Your task to perform on an android device: turn on sleep mode Image 0: 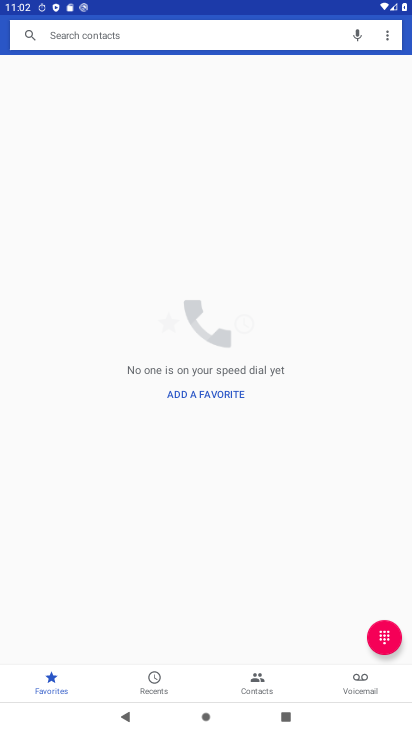
Step 0: press home button
Your task to perform on an android device: turn on sleep mode Image 1: 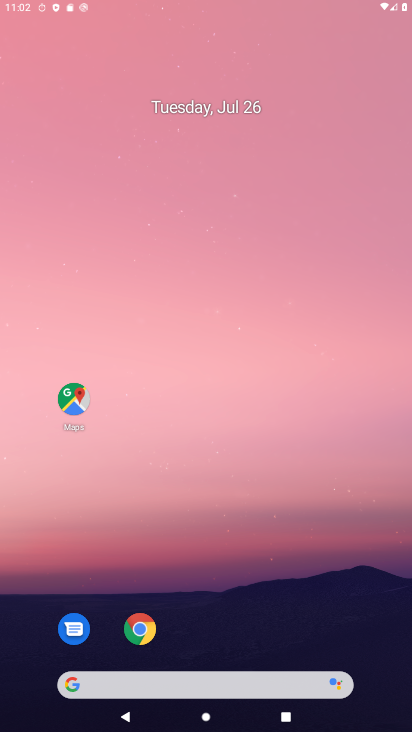
Step 1: drag from (375, 669) to (226, 109)
Your task to perform on an android device: turn on sleep mode Image 2: 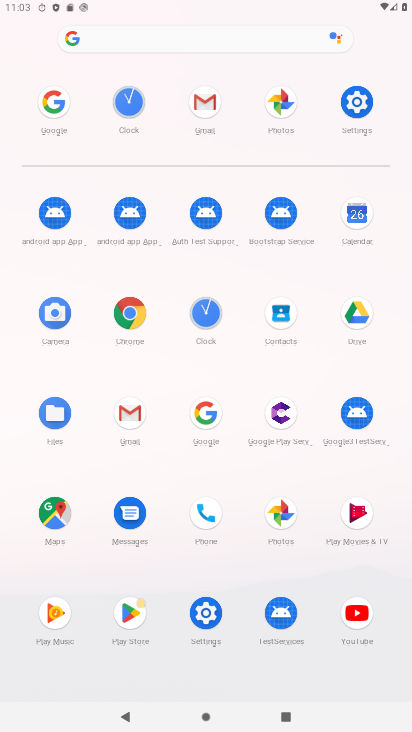
Step 2: click (199, 635)
Your task to perform on an android device: turn on sleep mode Image 3: 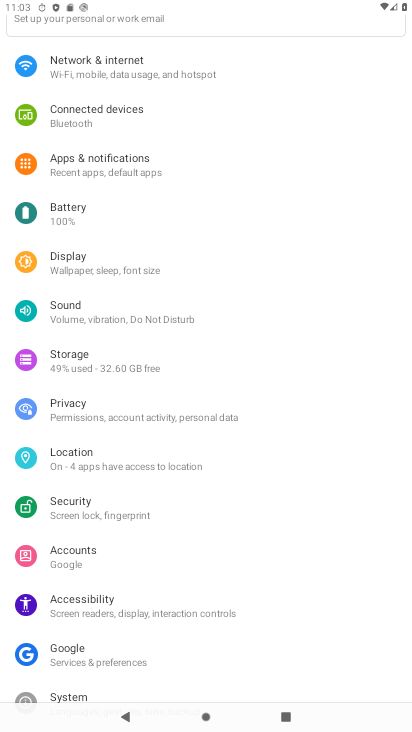
Step 3: task complete